Your task to perform on an android device: turn off picture-in-picture Image 0: 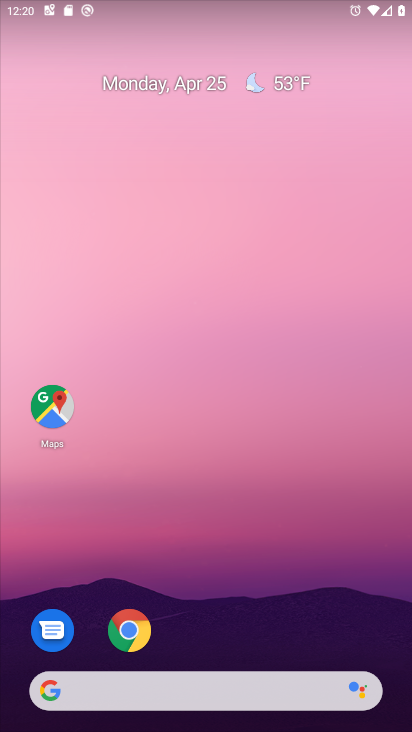
Step 0: drag from (173, 596) to (149, 210)
Your task to perform on an android device: turn off picture-in-picture Image 1: 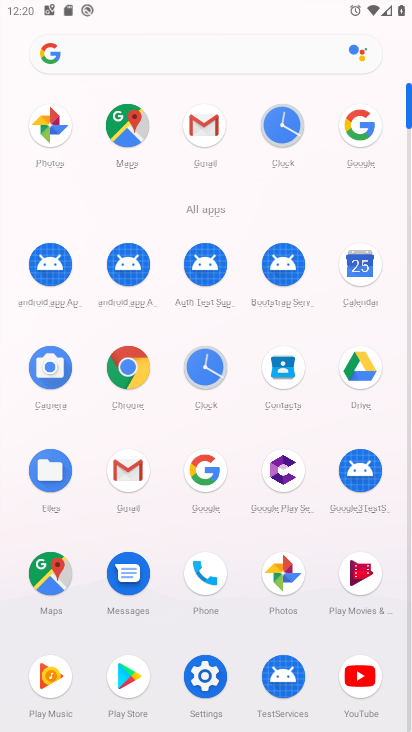
Step 1: click (207, 689)
Your task to perform on an android device: turn off picture-in-picture Image 2: 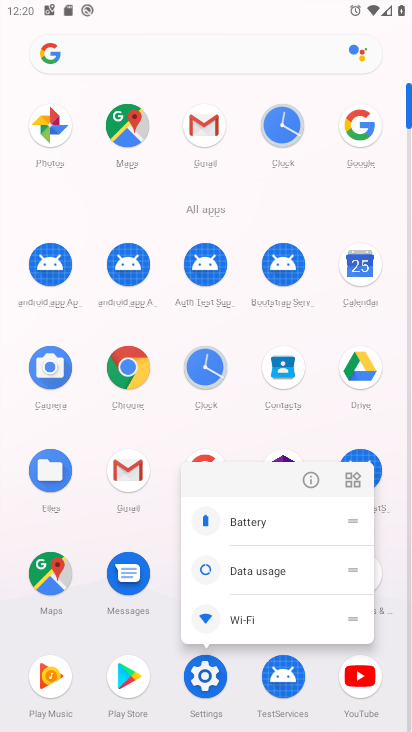
Step 2: click (306, 477)
Your task to perform on an android device: turn off picture-in-picture Image 3: 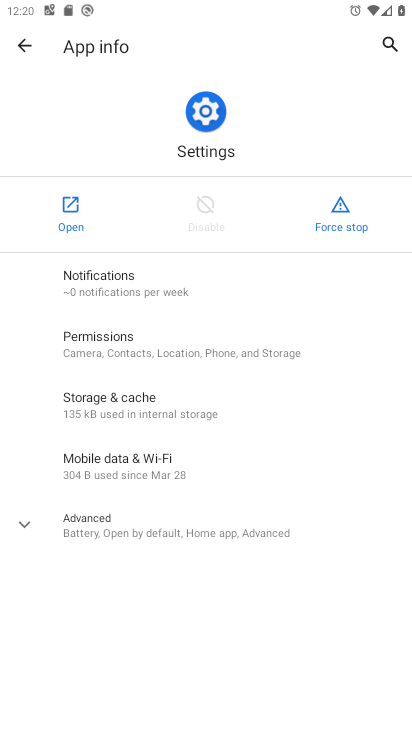
Step 3: click (79, 224)
Your task to perform on an android device: turn off picture-in-picture Image 4: 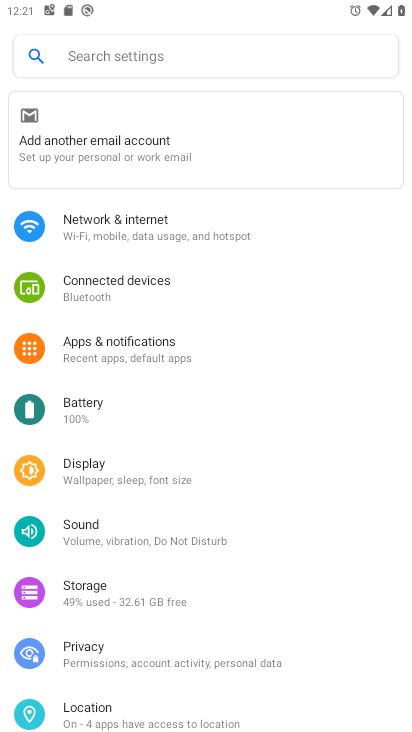
Step 4: drag from (170, 645) to (211, 326)
Your task to perform on an android device: turn off picture-in-picture Image 5: 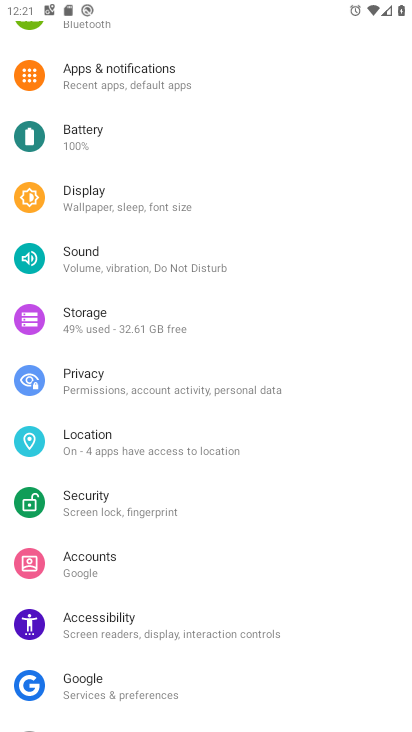
Step 5: drag from (192, 670) to (208, 407)
Your task to perform on an android device: turn off picture-in-picture Image 6: 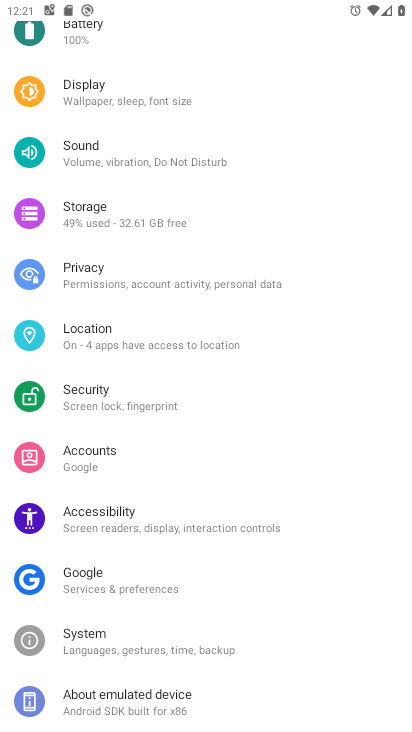
Step 6: drag from (182, 178) to (207, 620)
Your task to perform on an android device: turn off picture-in-picture Image 7: 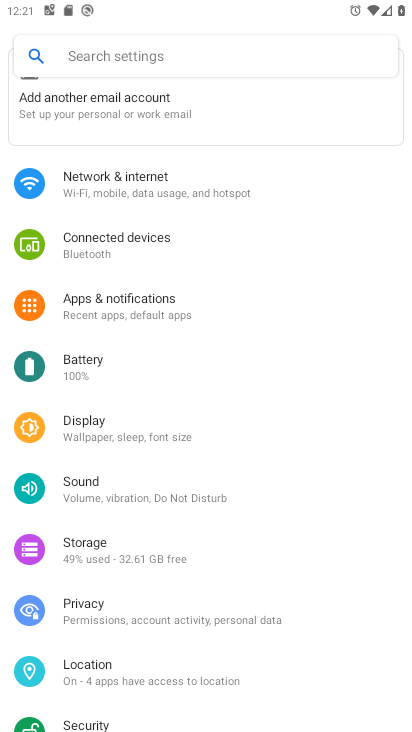
Step 7: click (131, 299)
Your task to perform on an android device: turn off picture-in-picture Image 8: 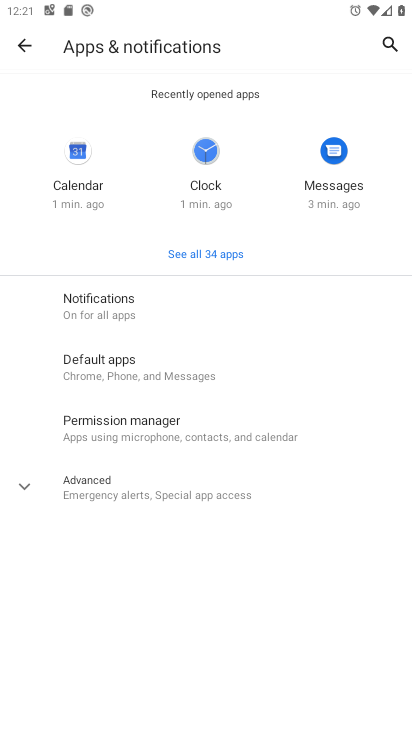
Step 8: drag from (113, 386) to (166, 507)
Your task to perform on an android device: turn off picture-in-picture Image 9: 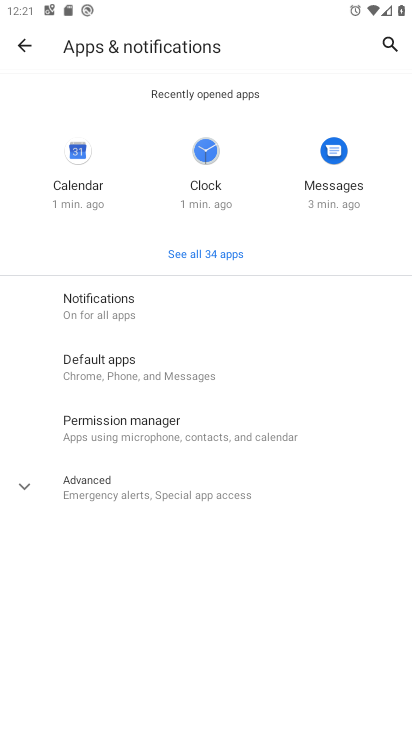
Step 9: click (140, 319)
Your task to perform on an android device: turn off picture-in-picture Image 10: 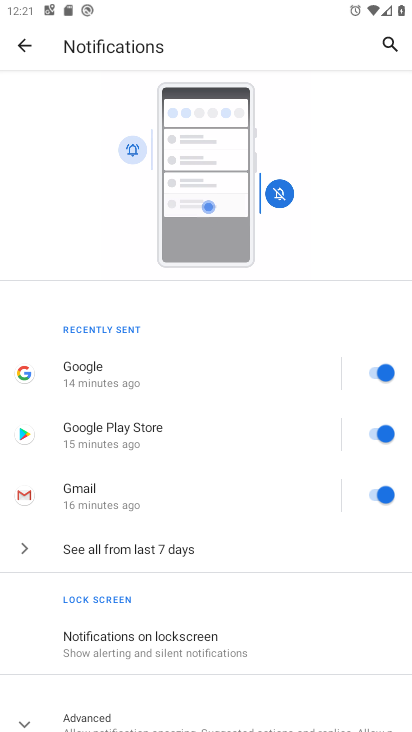
Step 10: click (31, 43)
Your task to perform on an android device: turn off picture-in-picture Image 11: 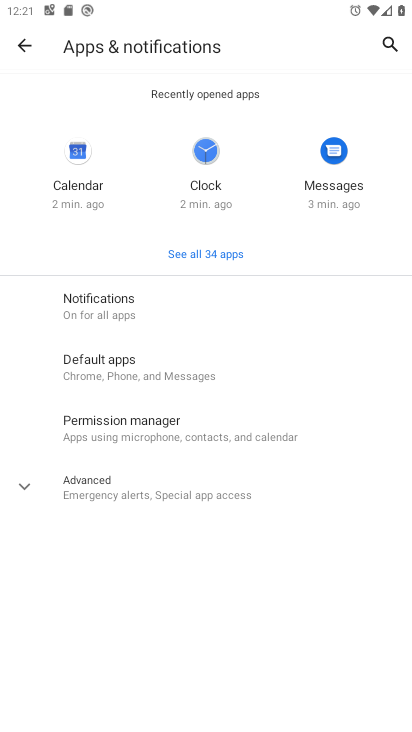
Step 11: click (118, 500)
Your task to perform on an android device: turn off picture-in-picture Image 12: 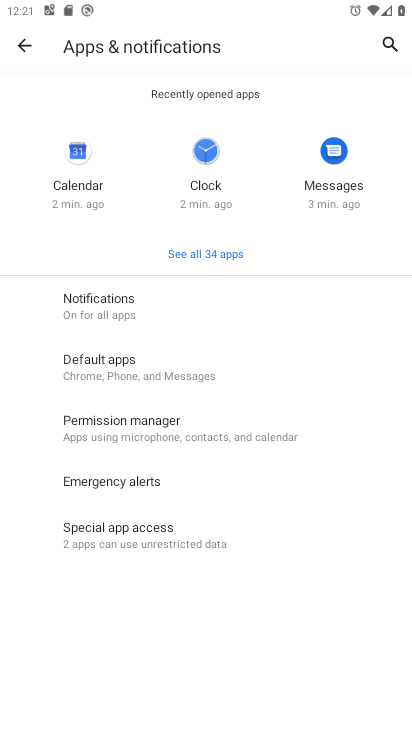
Step 12: click (143, 540)
Your task to perform on an android device: turn off picture-in-picture Image 13: 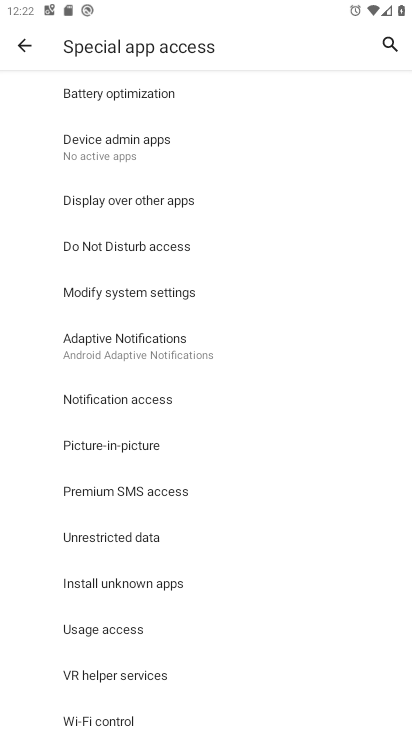
Step 13: click (140, 446)
Your task to perform on an android device: turn off picture-in-picture Image 14: 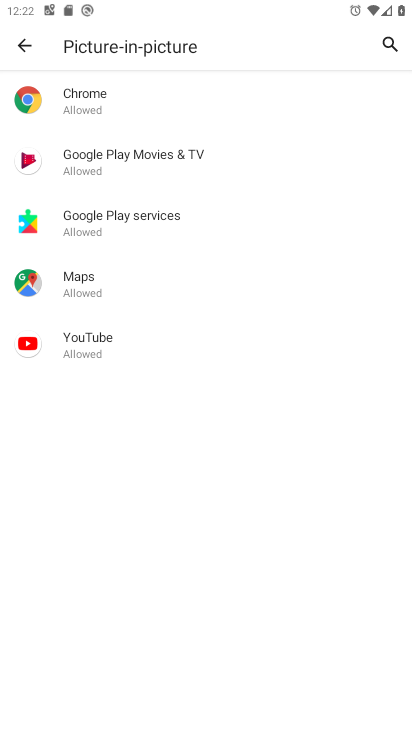
Step 14: task complete